Your task to perform on an android device: change the clock display to show seconds Image 0: 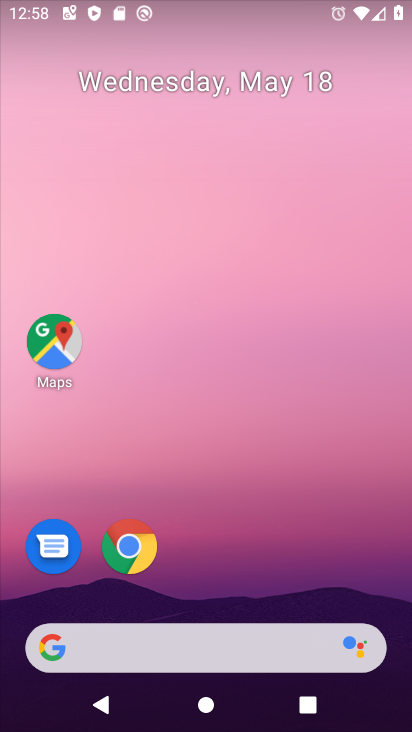
Step 0: drag from (223, 666) to (411, 69)
Your task to perform on an android device: change the clock display to show seconds Image 1: 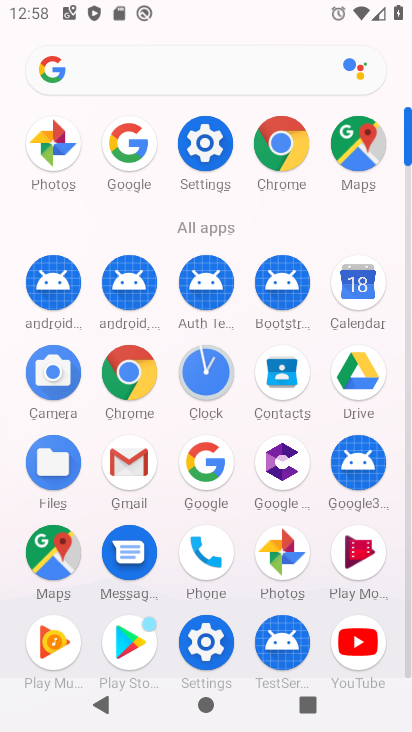
Step 1: click (204, 372)
Your task to perform on an android device: change the clock display to show seconds Image 2: 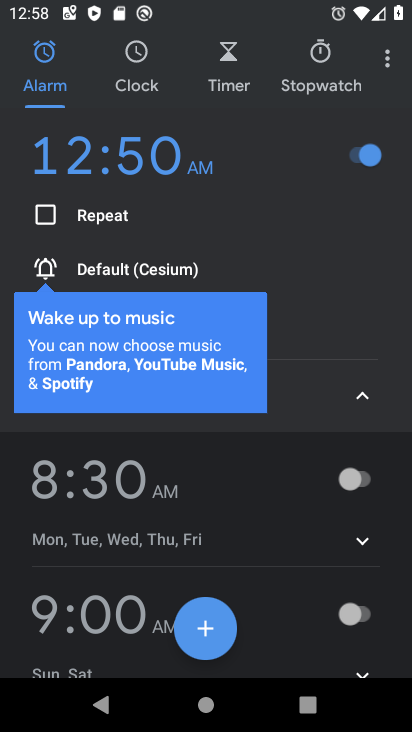
Step 2: click (394, 68)
Your task to perform on an android device: change the clock display to show seconds Image 3: 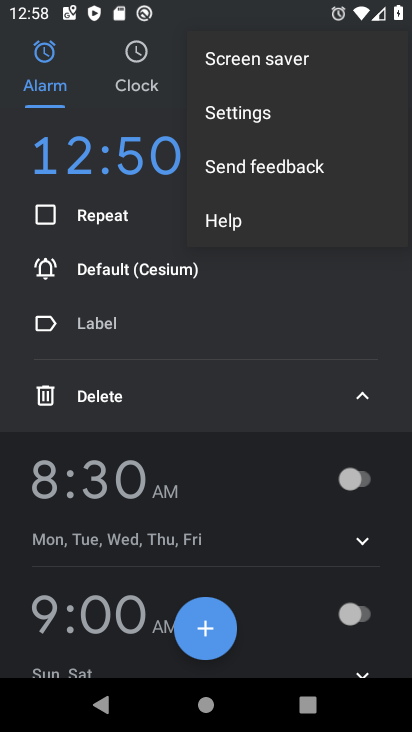
Step 3: click (276, 123)
Your task to perform on an android device: change the clock display to show seconds Image 4: 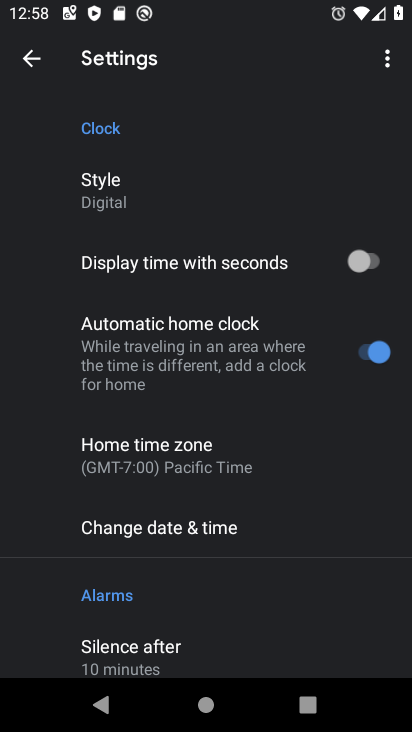
Step 4: click (394, 71)
Your task to perform on an android device: change the clock display to show seconds Image 5: 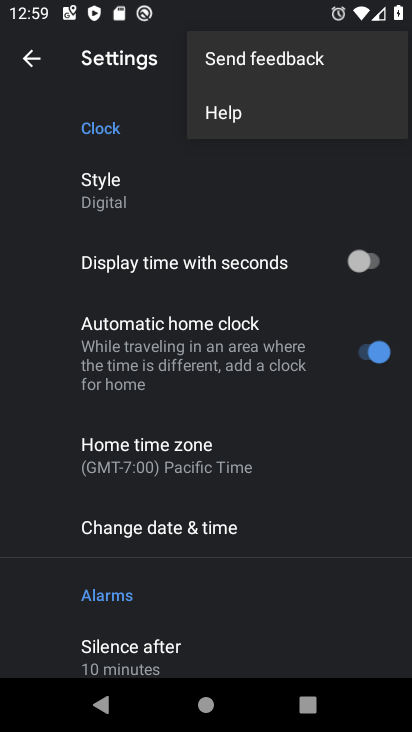
Step 5: click (282, 267)
Your task to perform on an android device: change the clock display to show seconds Image 6: 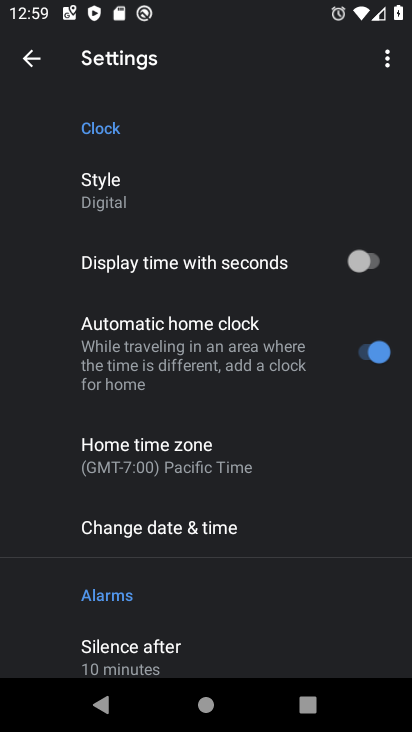
Step 6: click (282, 266)
Your task to perform on an android device: change the clock display to show seconds Image 7: 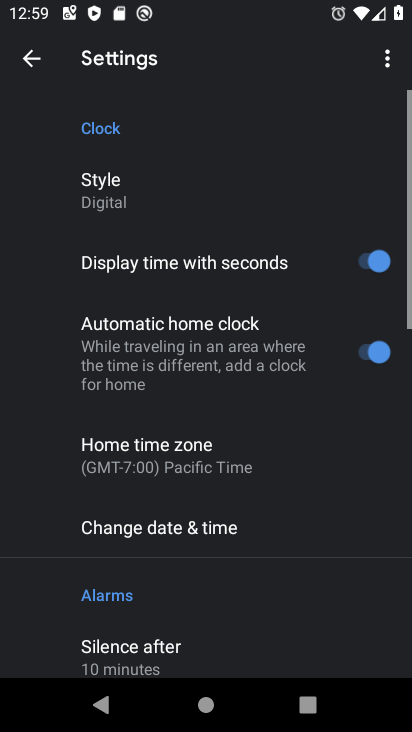
Step 7: task complete